Your task to perform on an android device: Is it going to rain today? Image 0: 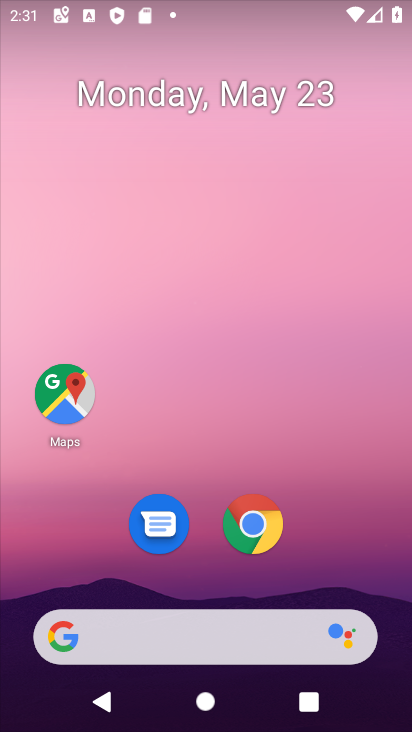
Step 0: drag from (328, 532) to (318, 47)
Your task to perform on an android device: Is it going to rain today? Image 1: 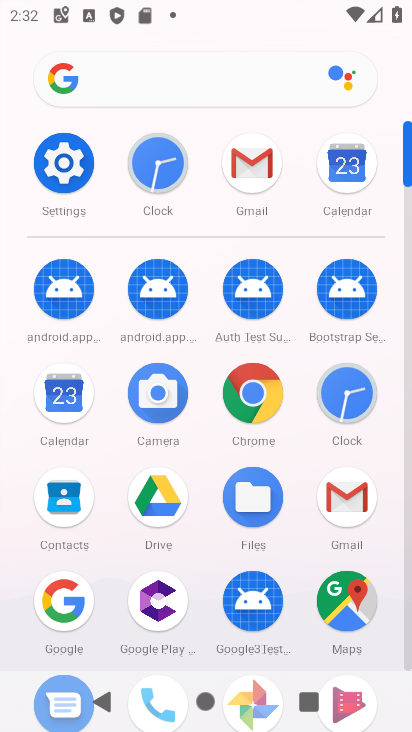
Step 1: click (77, 595)
Your task to perform on an android device: Is it going to rain today? Image 2: 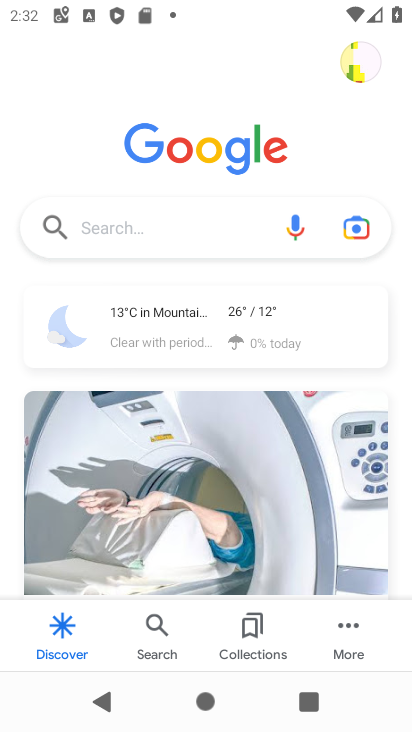
Step 2: click (257, 312)
Your task to perform on an android device: Is it going to rain today? Image 3: 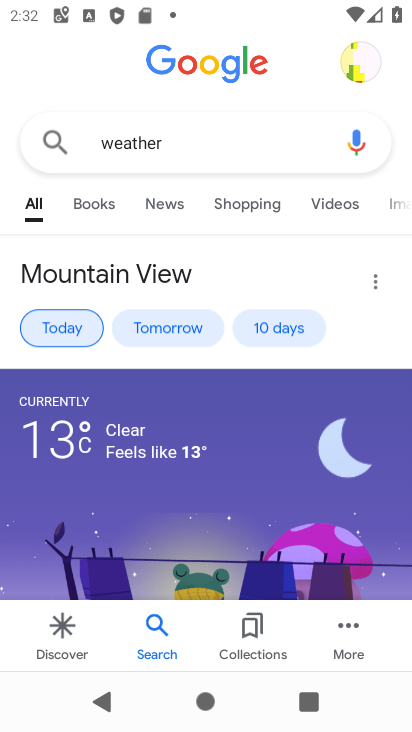
Step 3: click (80, 312)
Your task to perform on an android device: Is it going to rain today? Image 4: 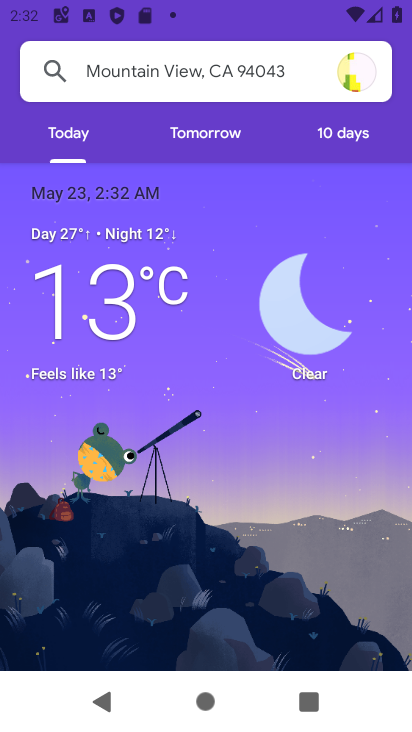
Step 4: task complete